Your task to perform on an android device: turn off sleep mode Image 0: 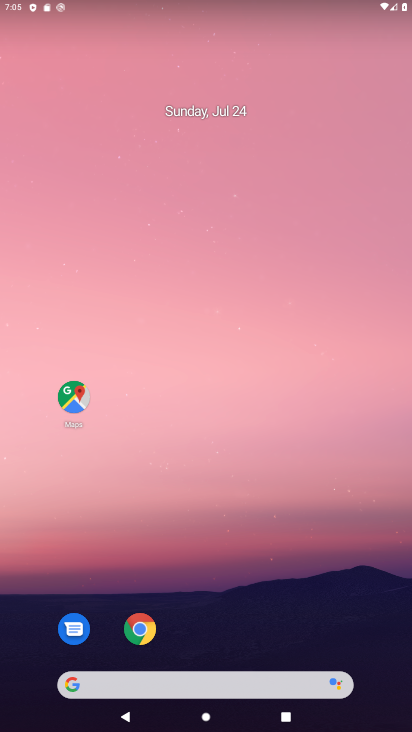
Step 0: drag from (358, 620) to (178, 53)
Your task to perform on an android device: turn off sleep mode Image 1: 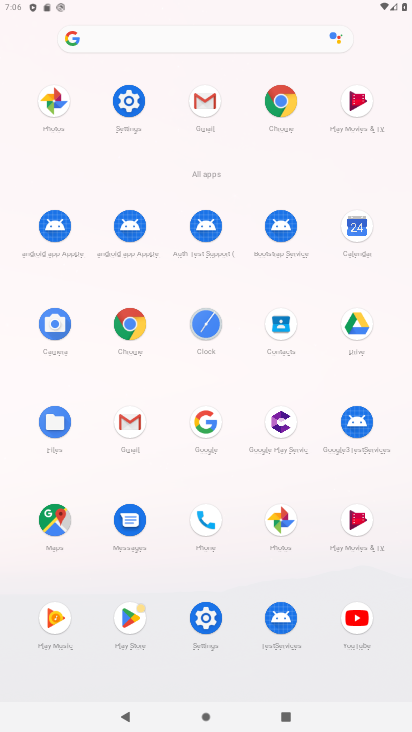
Step 1: click (205, 615)
Your task to perform on an android device: turn off sleep mode Image 2: 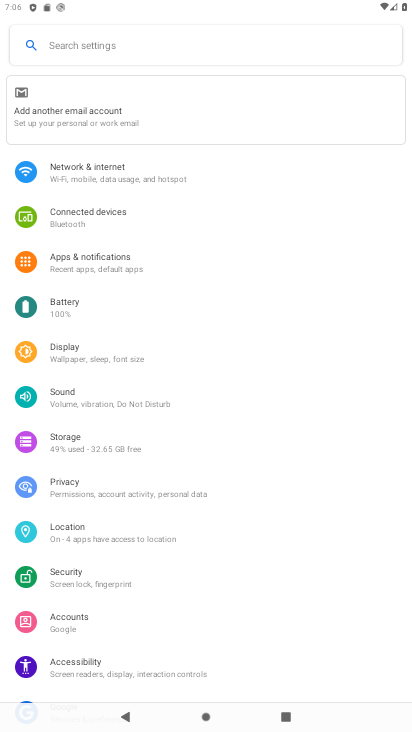
Step 2: task complete